Your task to perform on an android device: turn on showing notifications on the lock screen Image 0: 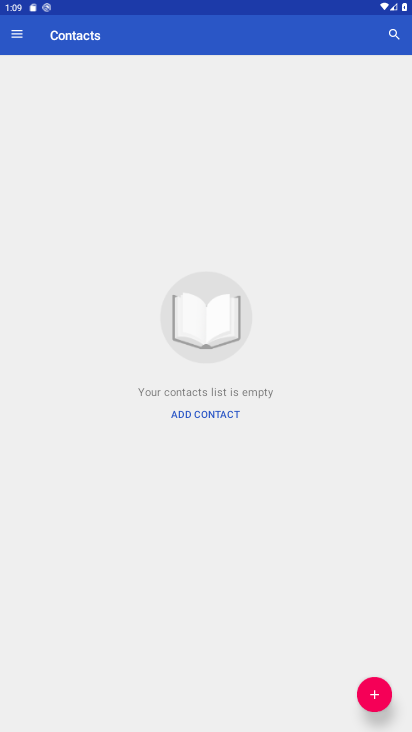
Step 0: drag from (287, 506) to (300, 330)
Your task to perform on an android device: turn on showing notifications on the lock screen Image 1: 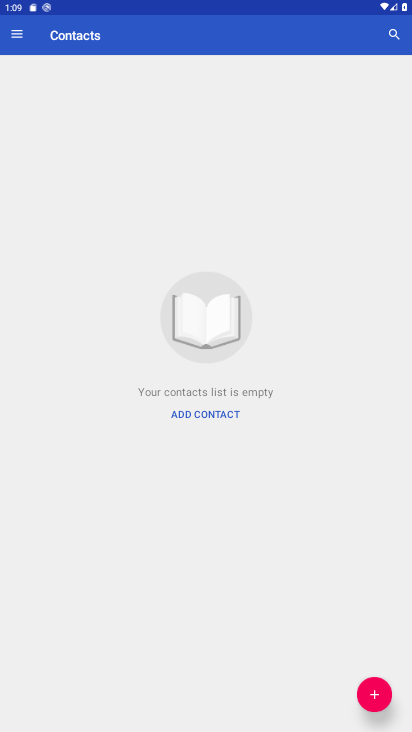
Step 1: press home button
Your task to perform on an android device: turn on showing notifications on the lock screen Image 2: 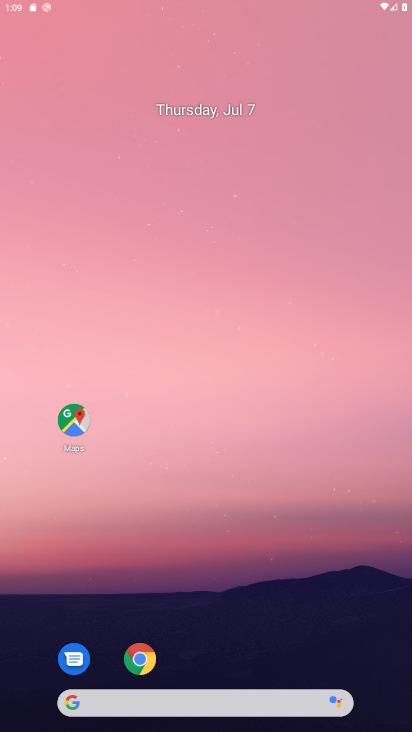
Step 2: drag from (182, 457) to (220, 270)
Your task to perform on an android device: turn on showing notifications on the lock screen Image 3: 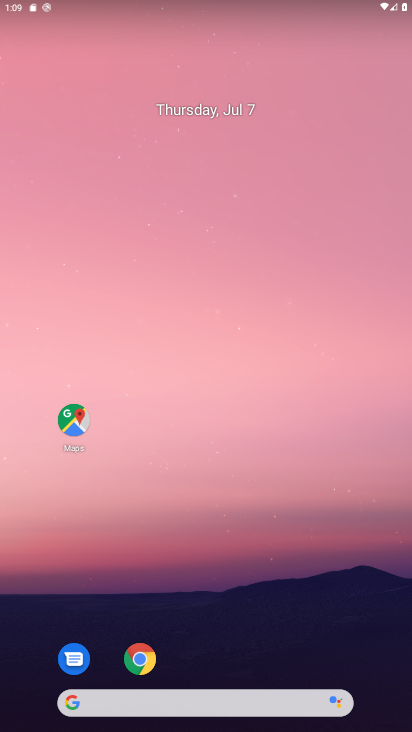
Step 3: drag from (198, 663) to (332, 83)
Your task to perform on an android device: turn on showing notifications on the lock screen Image 4: 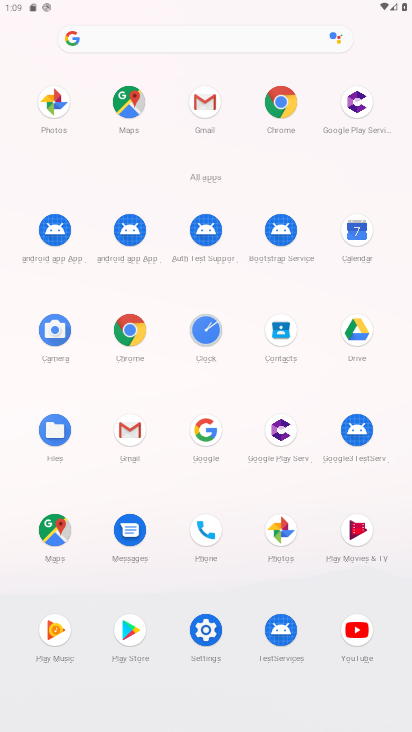
Step 4: click (209, 628)
Your task to perform on an android device: turn on showing notifications on the lock screen Image 5: 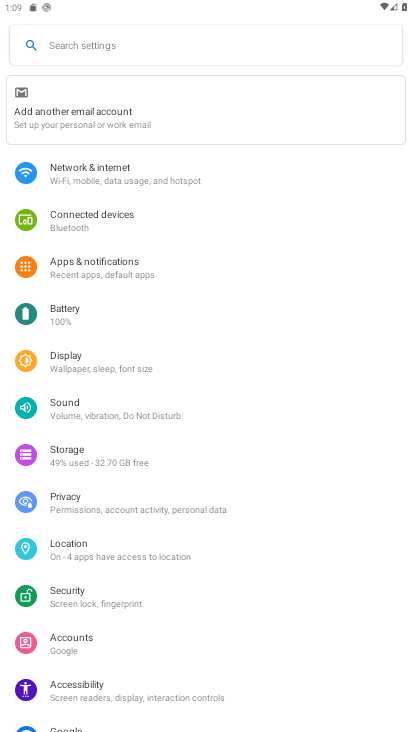
Step 5: click (88, 363)
Your task to perform on an android device: turn on showing notifications on the lock screen Image 6: 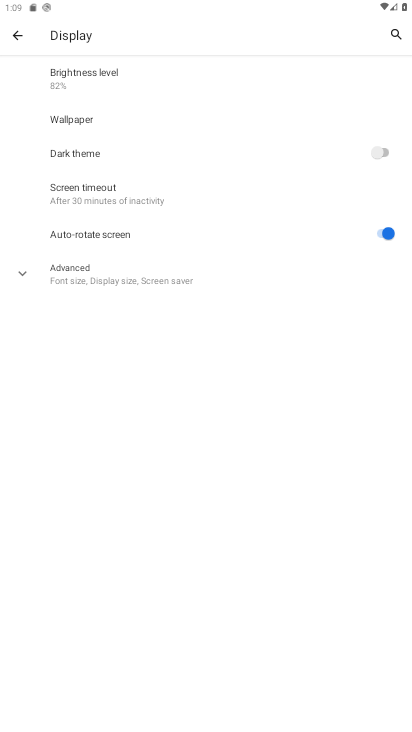
Step 6: click (15, 37)
Your task to perform on an android device: turn on showing notifications on the lock screen Image 7: 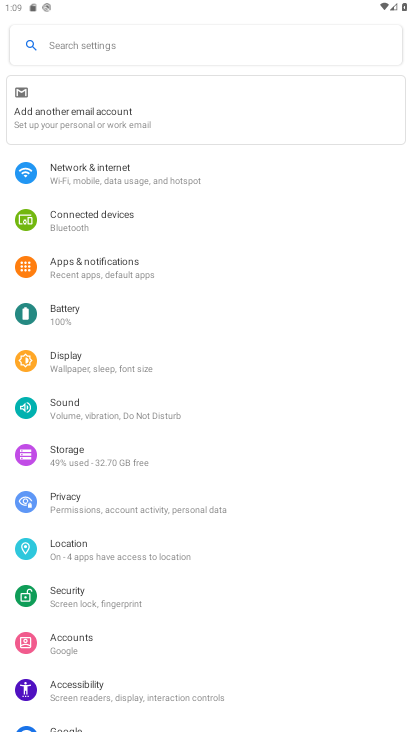
Step 7: click (121, 263)
Your task to perform on an android device: turn on showing notifications on the lock screen Image 8: 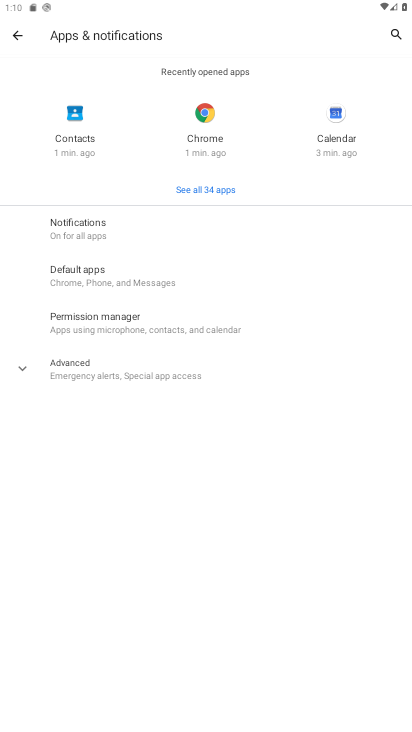
Step 8: click (205, 208)
Your task to perform on an android device: turn on showing notifications on the lock screen Image 9: 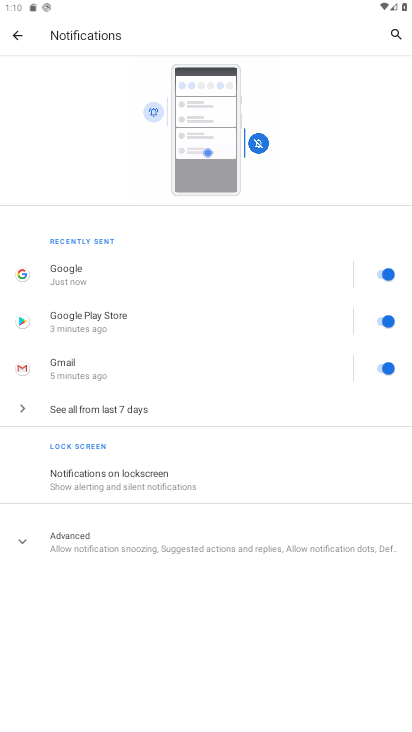
Step 9: click (161, 484)
Your task to perform on an android device: turn on showing notifications on the lock screen Image 10: 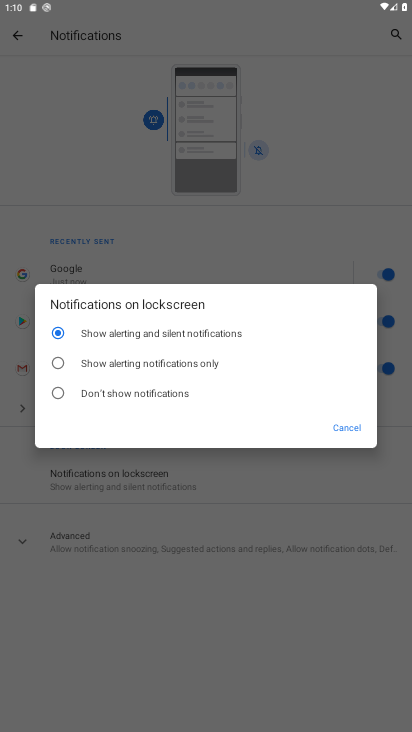
Step 10: click (176, 368)
Your task to perform on an android device: turn on showing notifications on the lock screen Image 11: 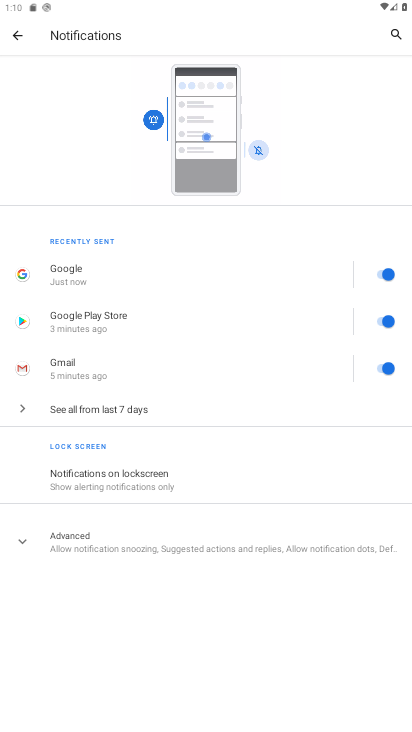
Step 11: task complete